Your task to perform on an android device: search for starred emails in the gmail app Image 0: 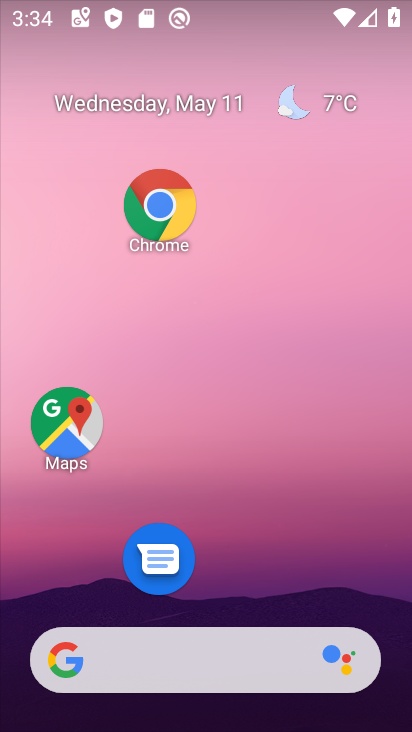
Step 0: drag from (213, 634) to (260, 188)
Your task to perform on an android device: search for starred emails in the gmail app Image 1: 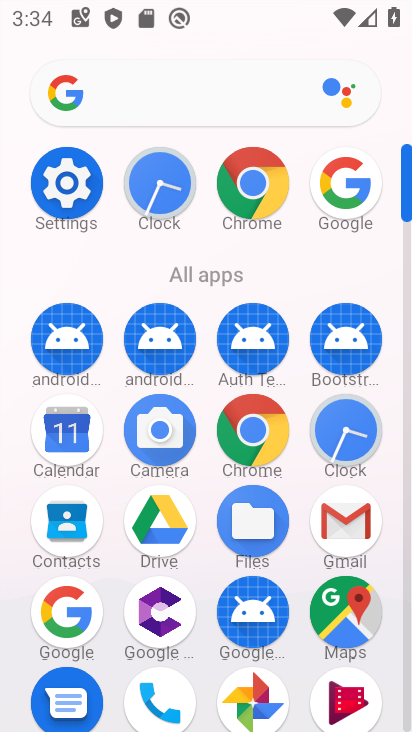
Step 1: drag from (114, 634) to (116, 284)
Your task to perform on an android device: search for starred emails in the gmail app Image 2: 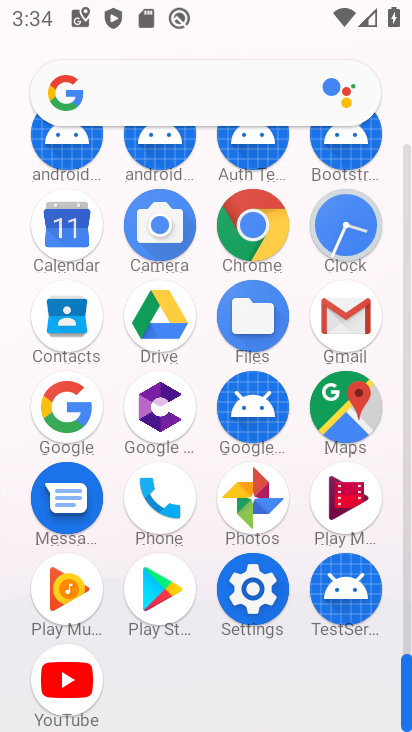
Step 2: click (337, 324)
Your task to perform on an android device: search for starred emails in the gmail app Image 3: 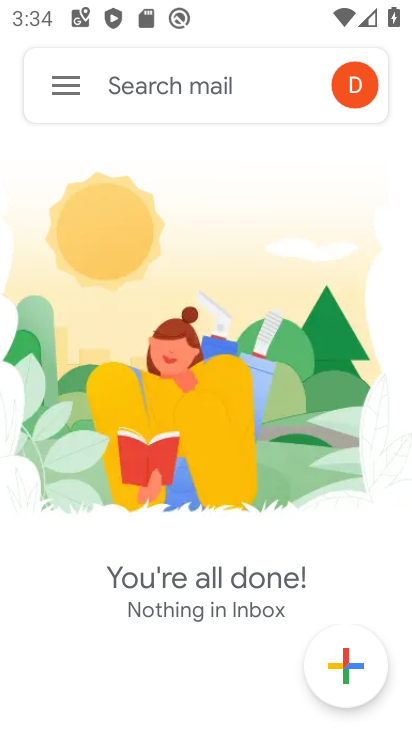
Step 3: click (59, 95)
Your task to perform on an android device: search for starred emails in the gmail app Image 4: 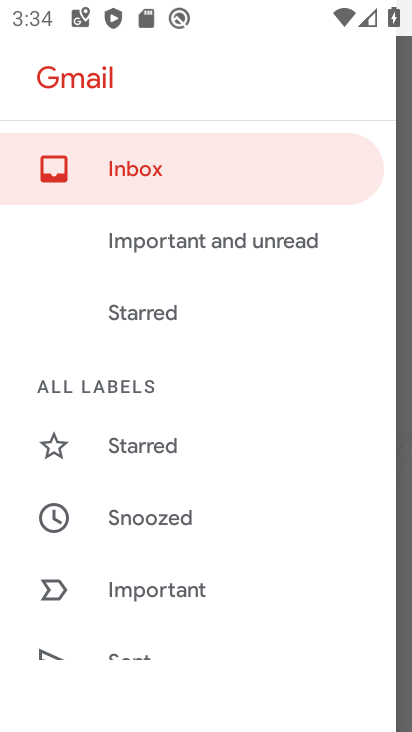
Step 4: drag from (207, 649) to (208, 324)
Your task to perform on an android device: search for starred emails in the gmail app Image 5: 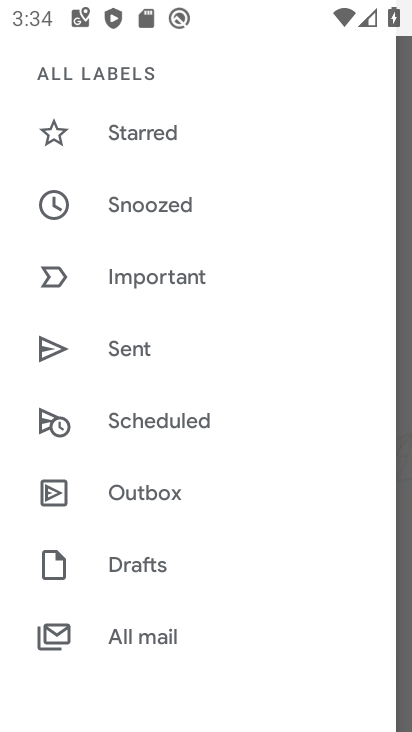
Step 5: click (157, 132)
Your task to perform on an android device: search for starred emails in the gmail app Image 6: 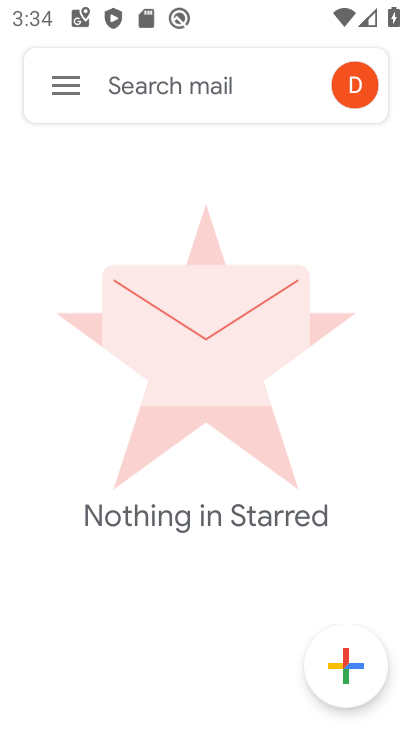
Step 6: task complete